Your task to perform on an android device: Go to wifi settings Image 0: 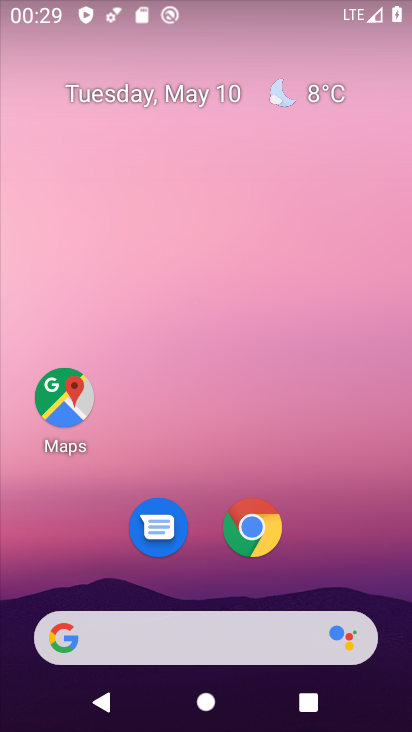
Step 0: drag from (308, 496) to (80, 86)
Your task to perform on an android device: Go to wifi settings Image 1: 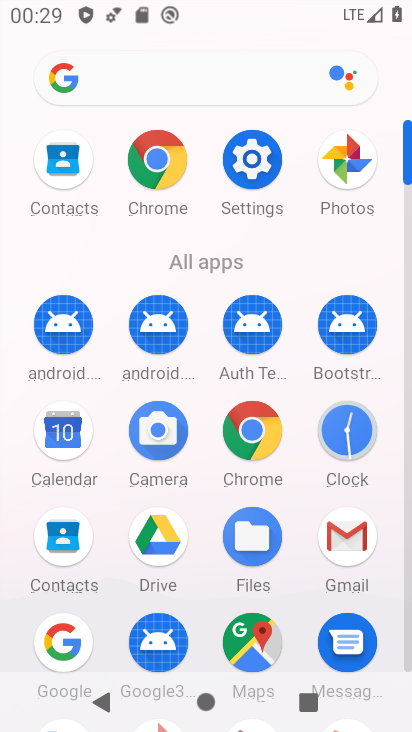
Step 1: click (264, 159)
Your task to perform on an android device: Go to wifi settings Image 2: 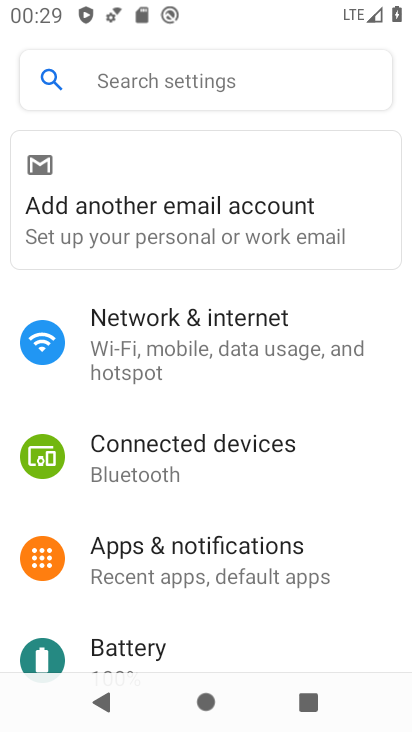
Step 2: click (153, 350)
Your task to perform on an android device: Go to wifi settings Image 3: 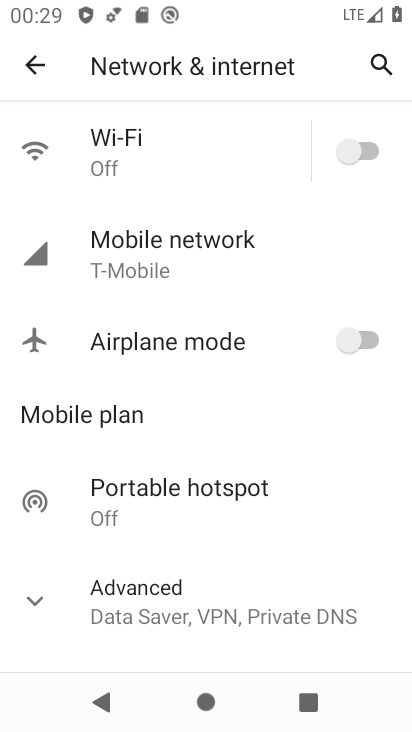
Step 3: click (99, 159)
Your task to perform on an android device: Go to wifi settings Image 4: 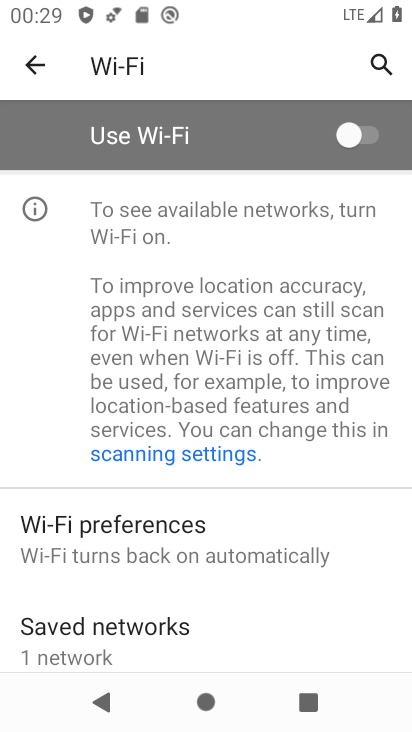
Step 4: task complete